Your task to perform on an android device: add a contact Image 0: 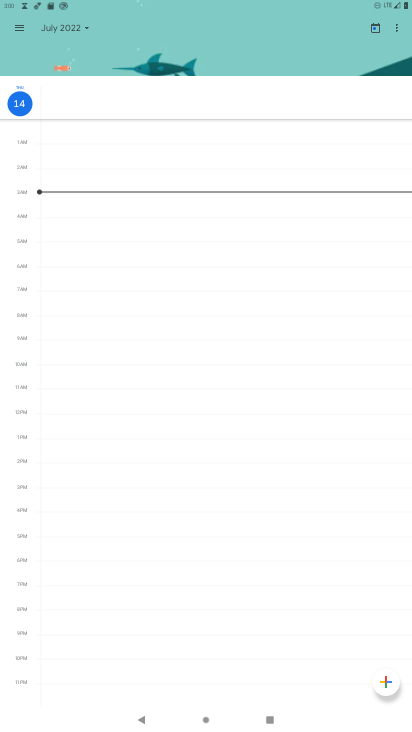
Step 0: press home button
Your task to perform on an android device: add a contact Image 1: 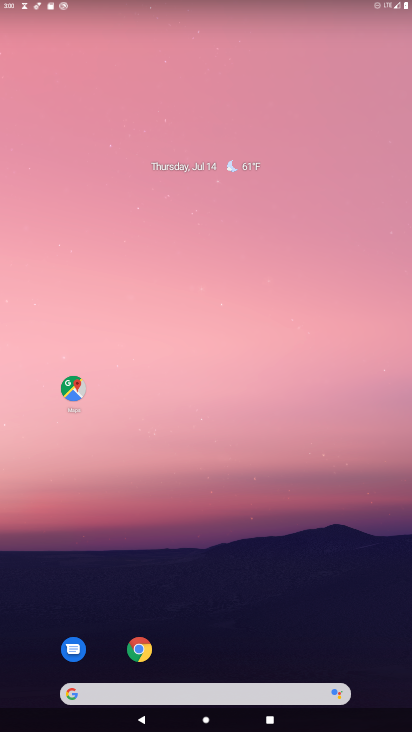
Step 1: drag from (216, 579) to (262, 11)
Your task to perform on an android device: add a contact Image 2: 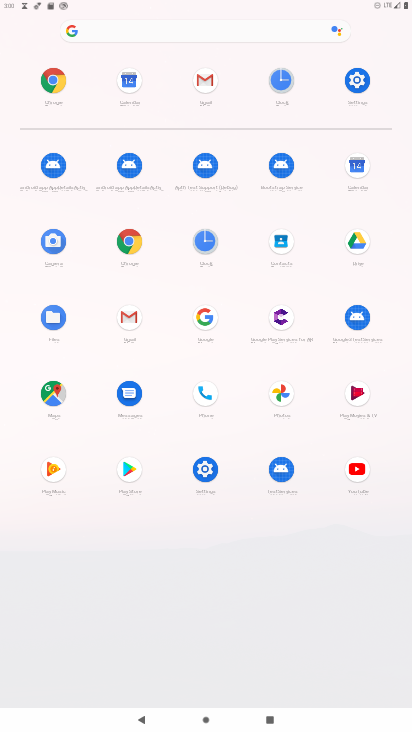
Step 2: click (280, 243)
Your task to perform on an android device: add a contact Image 3: 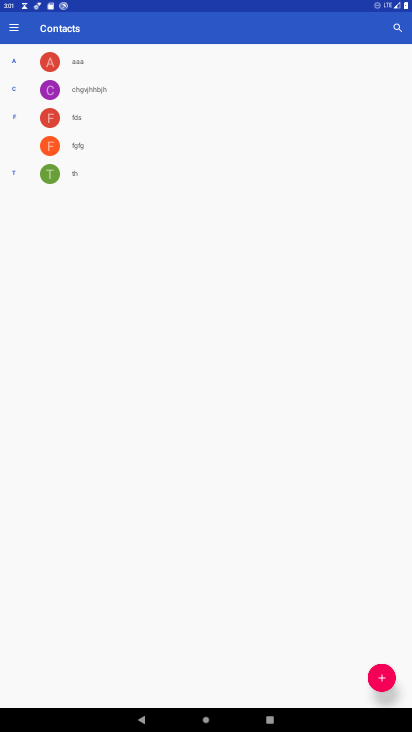
Step 3: click (387, 684)
Your task to perform on an android device: add a contact Image 4: 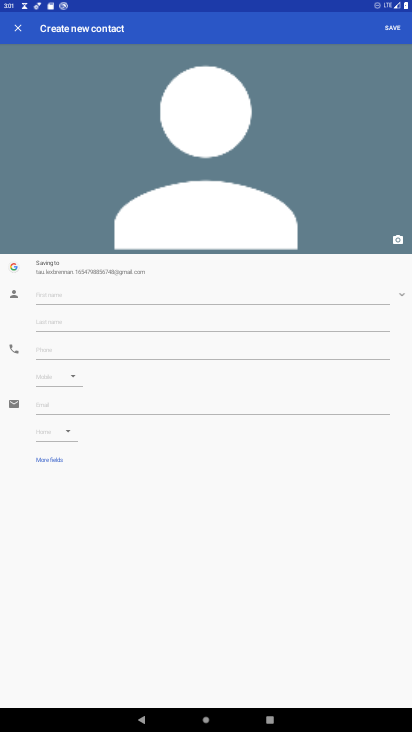
Step 4: click (187, 301)
Your task to perform on an android device: add a contact Image 5: 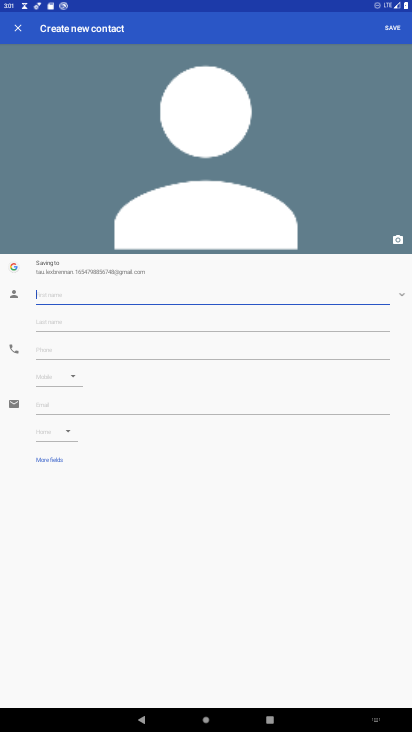
Step 5: type "kashish"
Your task to perform on an android device: add a contact Image 6: 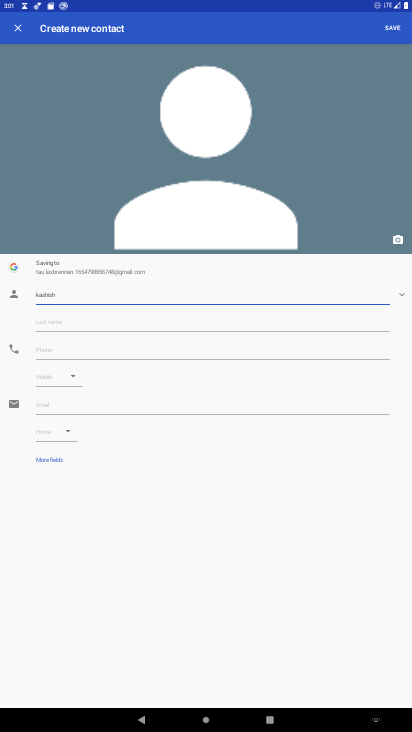
Step 6: click (123, 353)
Your task to perform on an android device: add a contact Image 7: 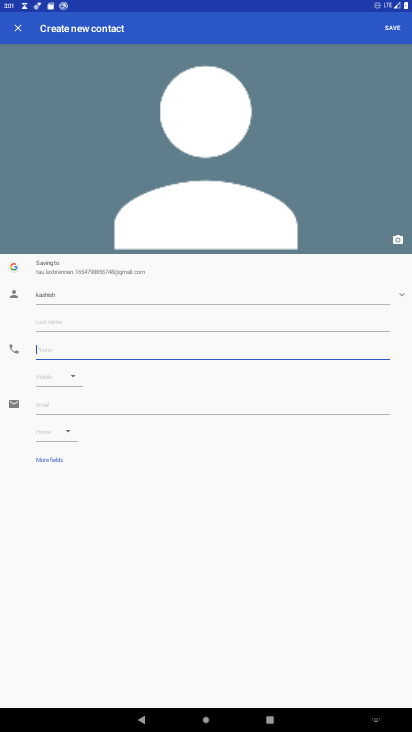
Step 7: type "9876567898"
Your task to perform on an android device: add a contact Image 8: 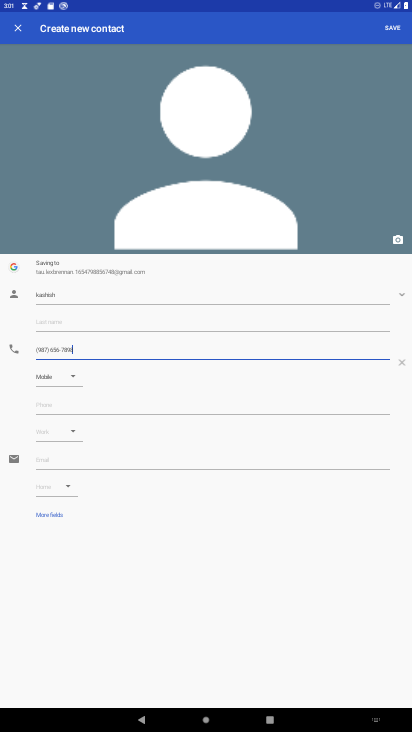
Step 8: click (386, 29)
Your task to perform on an android device: add a contact Image 9: 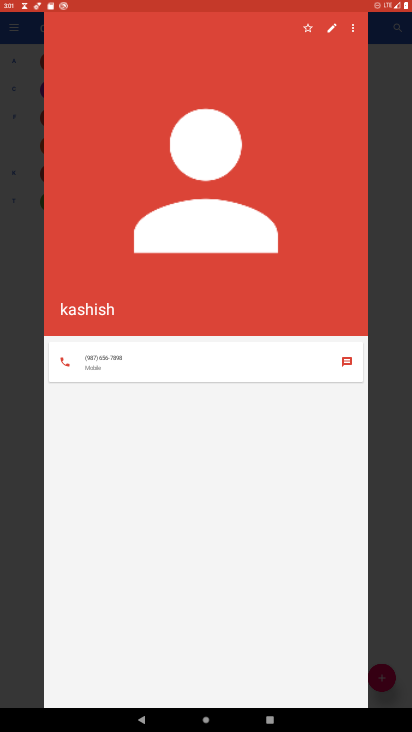
Step 9: task complete